Your task to perform on an android device: Open eBay Image 0: 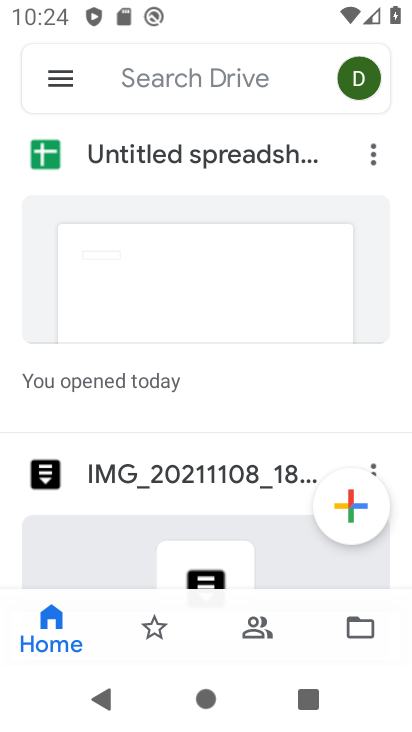
Step 0: press home button
Your task to perform on an android device: Open eBay Image 1: 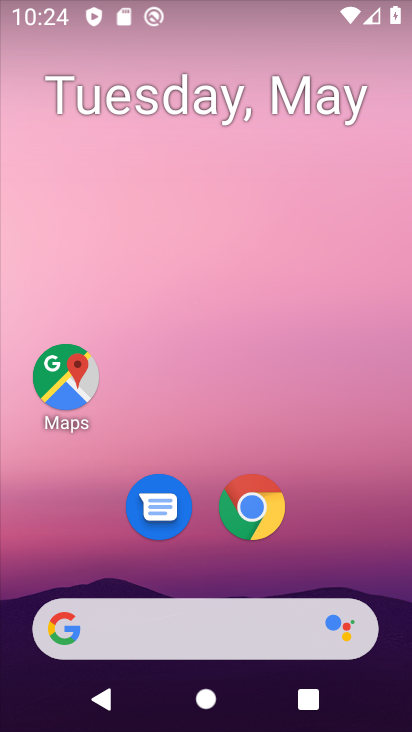
Step 1: drag from (358, 558) to (387, 258)
Your task to perform on an android device: Open eBay Image 2: 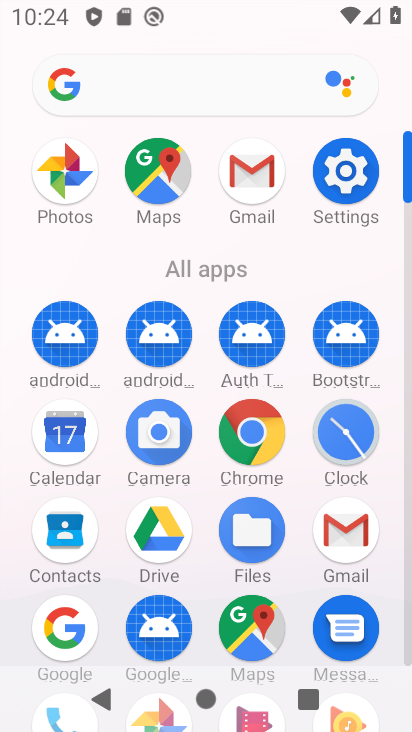
Step 2: click (258, 434)
Your task to perform on an android device: Open eBay Image 3: 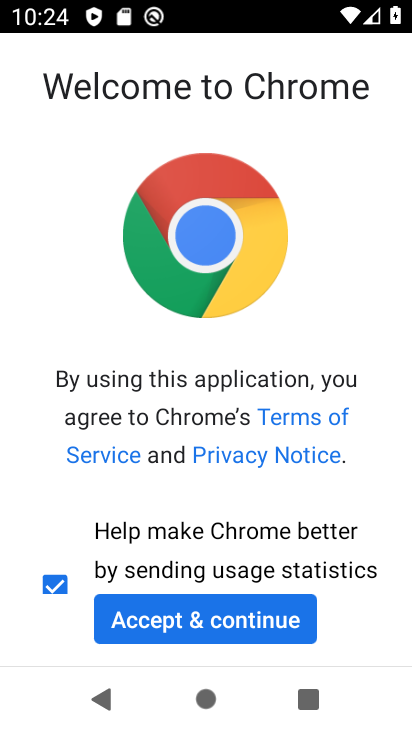
Step 3: click (276, 622)
Your task to perform on an android device: Open eBay Image 4: 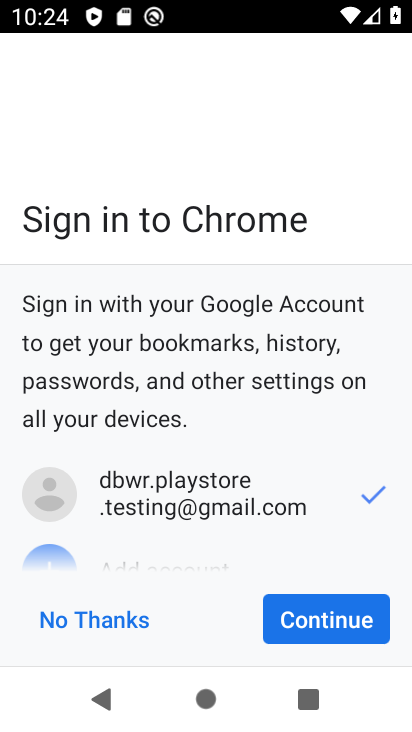
Step 4: click (276, 622)
Your task to perform on an android device: Open eBay Image 5: 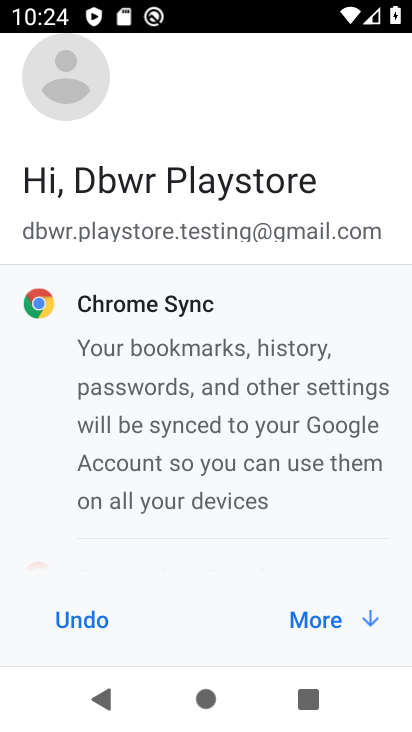
Step 5: click (304, 622)
Your task to perform on an android device: Open eBay Image 6: 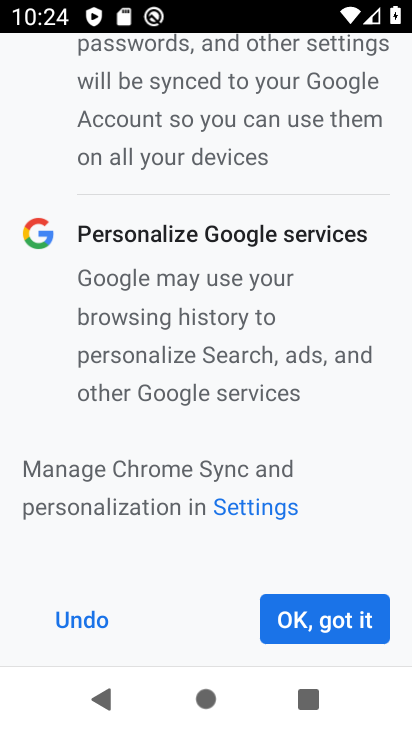
Step 6: click (304, 622)
Your task to perform on an android device: Open eBay Image 7: 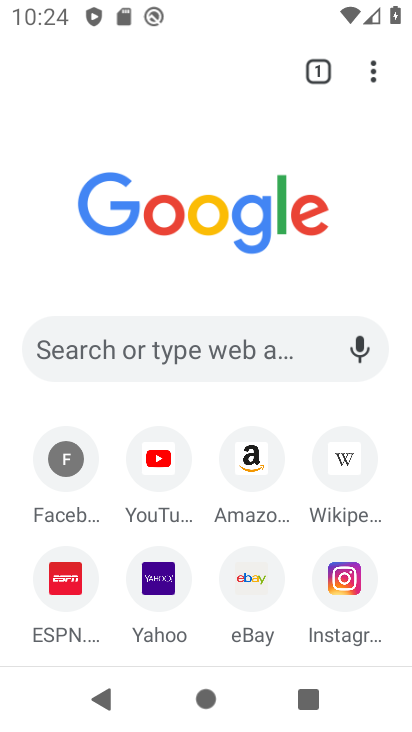
Step 7: click (260, 585)
Your task to perform on an android device: Open eBay Image 8: 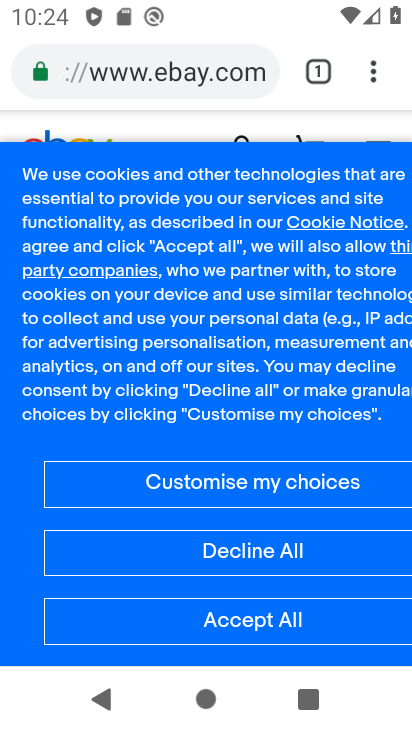
Step 8: task complete